Your task to perform on an android device: Do I have any events today? Image 0: 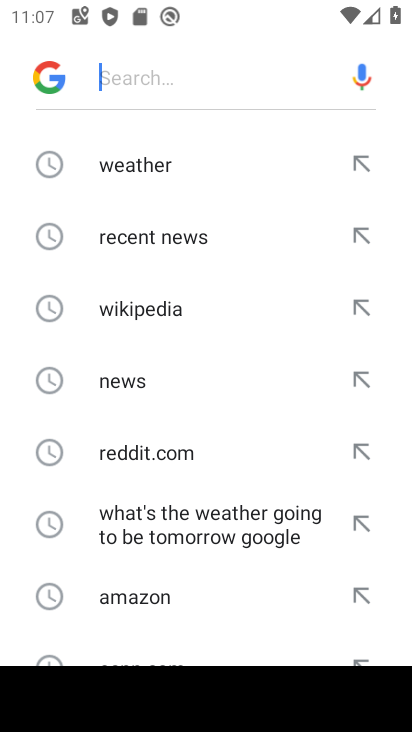
Step 0: press home button
Your task to perform on an android device: Do I have any events today? Image 1: 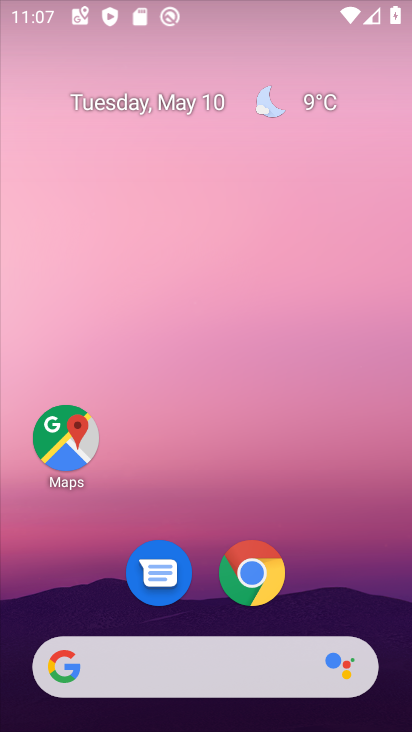
Step 1: drag from (181, 727) to (184, 182)
Your task to perform on an android device: Do I have any events today? Image 2: 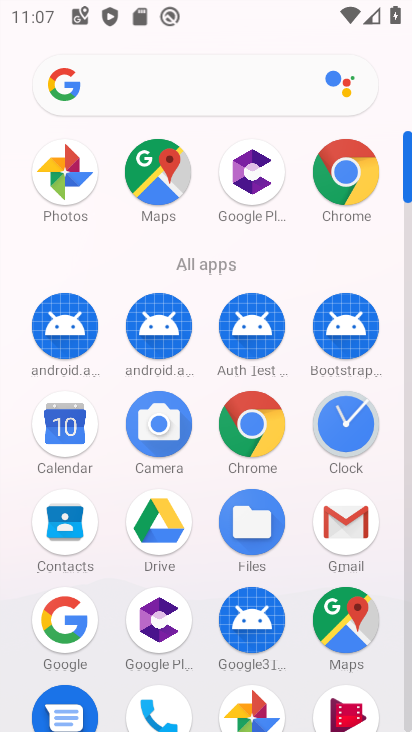
Step 2: click (63, 435)
Your task to perform on an android device: Do I have any events today? Image 3: 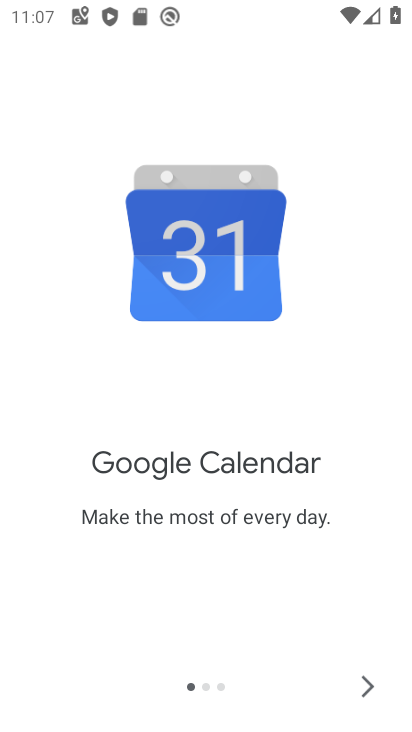
Step 3: click (366, 681)
Your task to perform on an android device: Do I have any events today? Image 4: 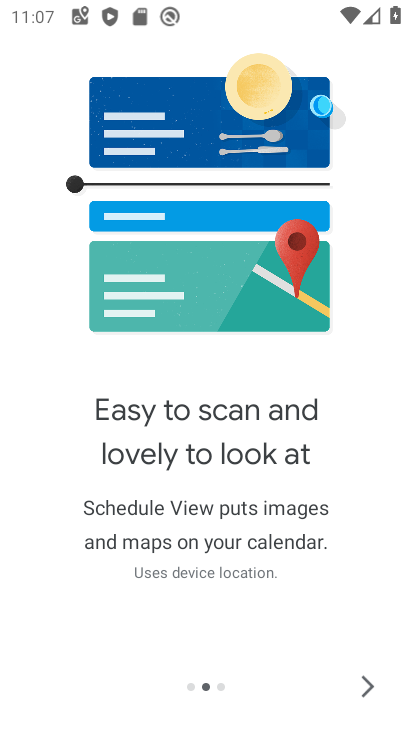
Step 4: click (366, 681)
Your task to perform on an android device: Do I have any events today? Image 5: 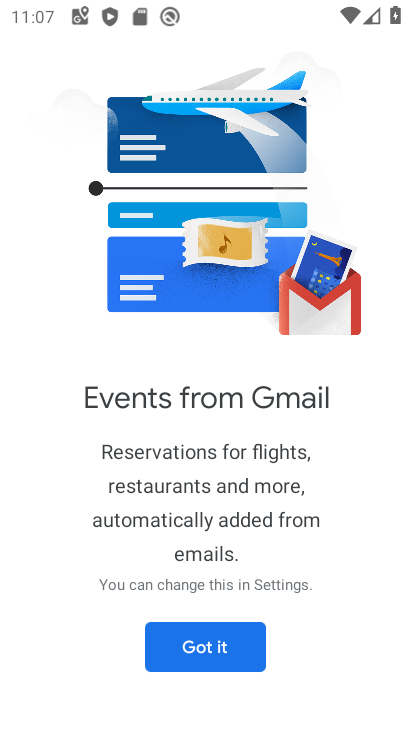
Step 5: click (185, 643)
Your task to perform on an android device: Do I have any events today? Image 6: 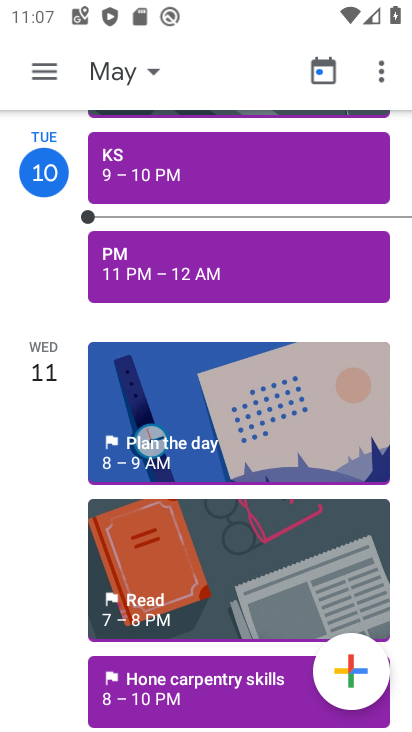
Step 6: click (41, 65)
Your task to perform on an android device: Do I have any events today? Image 7: 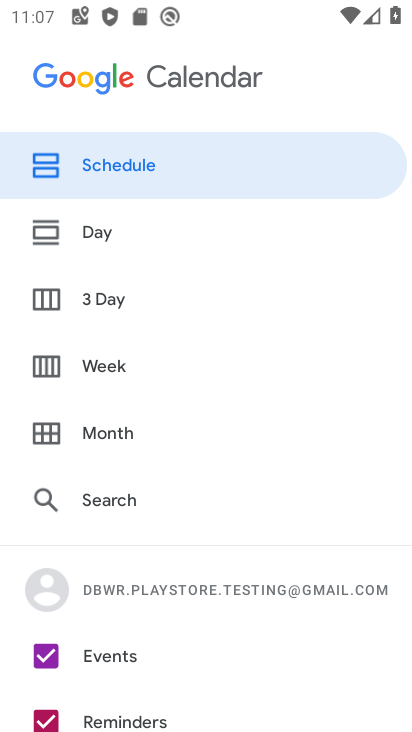
Step 7: drag from (238, 702) to (276, 357)
Your task to perform on an android device: Do I have any events today? Image 8: 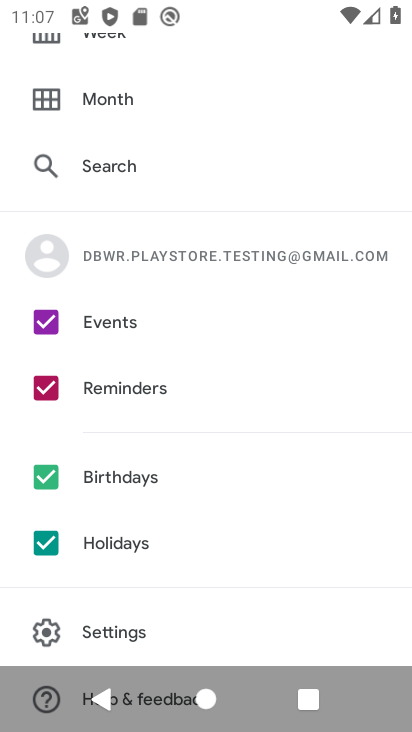
Step 8: click (44, 534)
Your task to perform on an android device: Do I have any events today? Image 9: 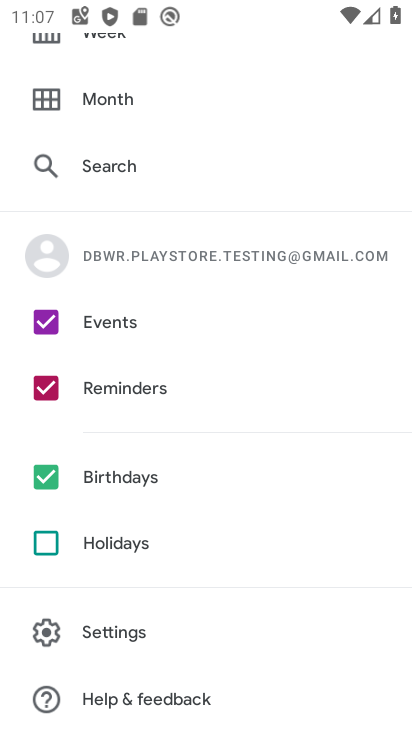
Step 9: click (48, 466)
Your task to perform on an android device: Do I have any events today? Image 10: 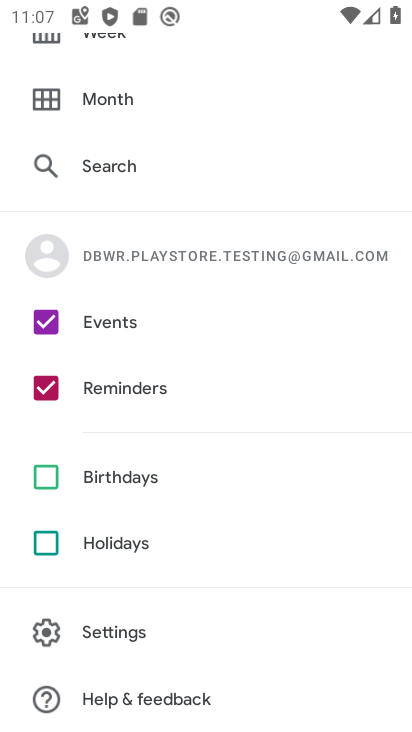
Step 10: click (48, 388)
Your task to perform on an android device: Do I have any events today? Image 11: 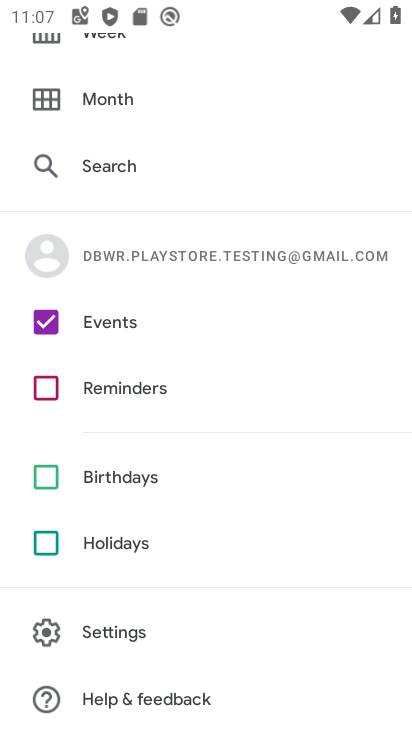
Step 11: drag from (284, 156) to (284, 533)
Your task to perform on an android device: Do I have any events today? Image 12: 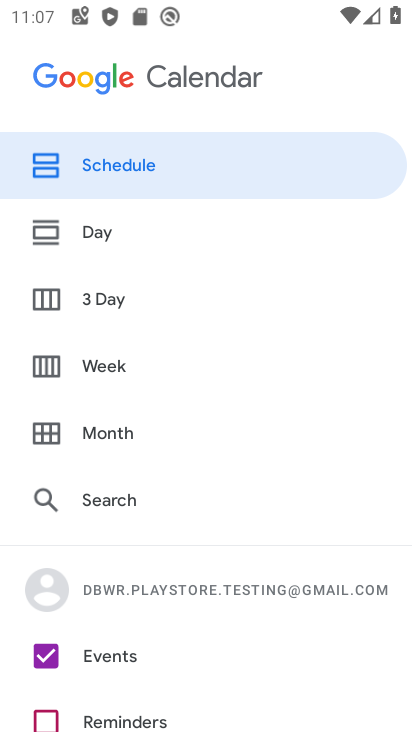
Step 12: click (182, 164)
Your task to perform on an android device: Do I have any events today? Image 13: 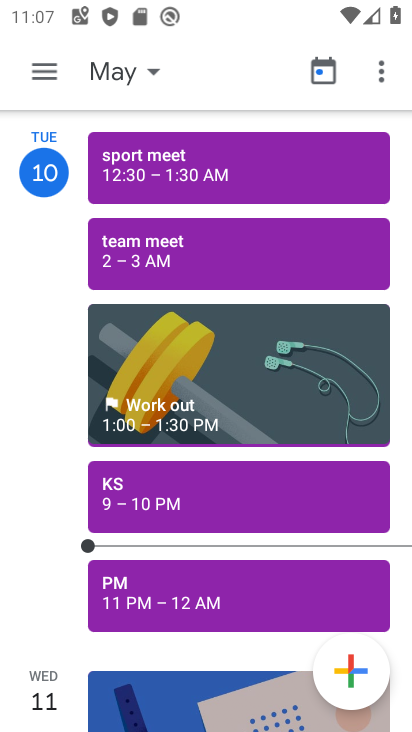
Step 13: click (115, 67)
Your task to perform on an android device: Do I have any events today? Image 14: 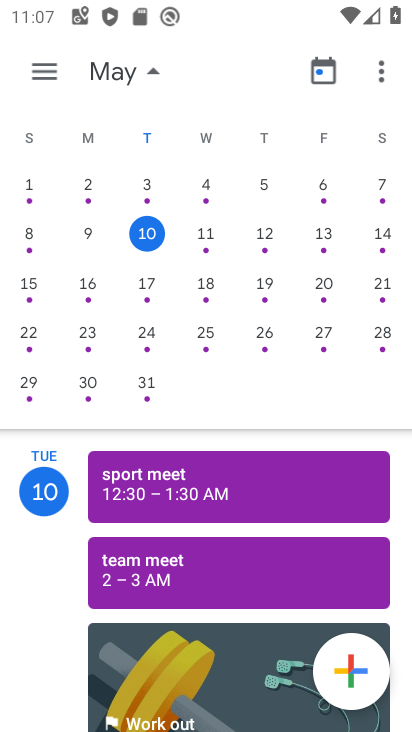
Step 14: click (148, 230)
Your task to perform on an android device: Do I have any events today? Image 15: 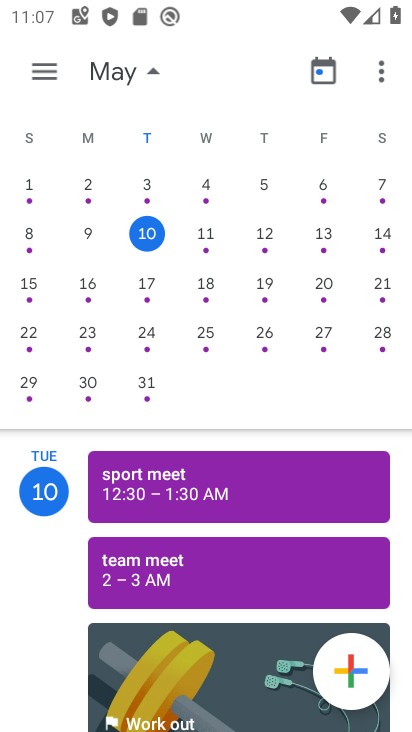
Step 15: task complete